Your task to perform on an android device: Open calendar and show me the second week of next month Image 0: 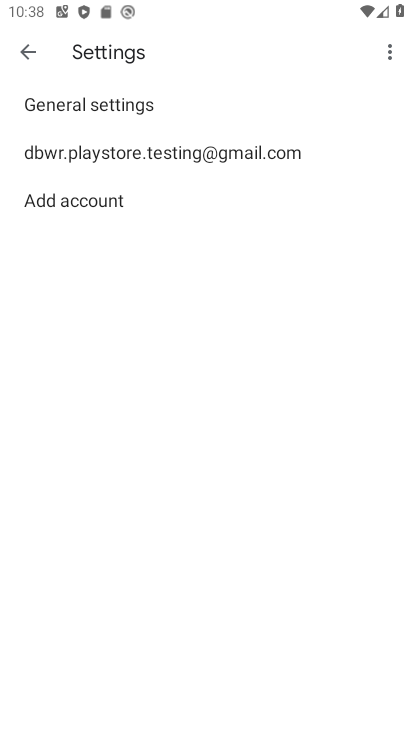
Step 0: press home button
Your task to perform on an android device: Open calendar and show me the second week of next month Image 1: 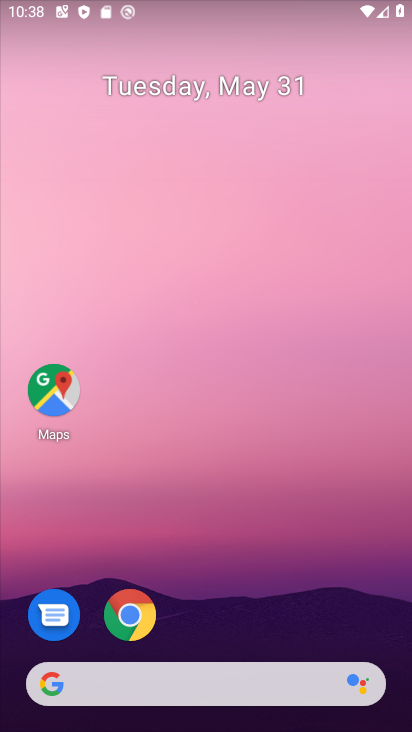
Step 1: drag from (242, 621) to (258, 163)
Your task to perform on an android device: Open calendar and show me the second week of next month Image 2: 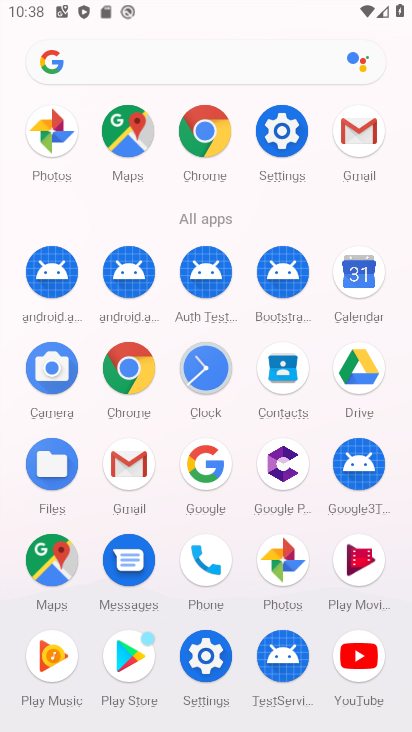
Step 2: click (349, 293)
Your task to perform on an android device: Open calendar and show me the second week of next month Image 3: 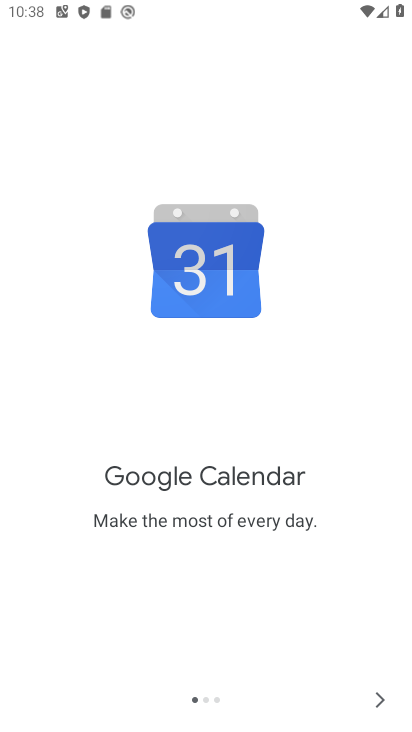
Step 3: click (369, 705)
Your task to perform on an android device: Open calendar and show me the second week of next month Image 4: 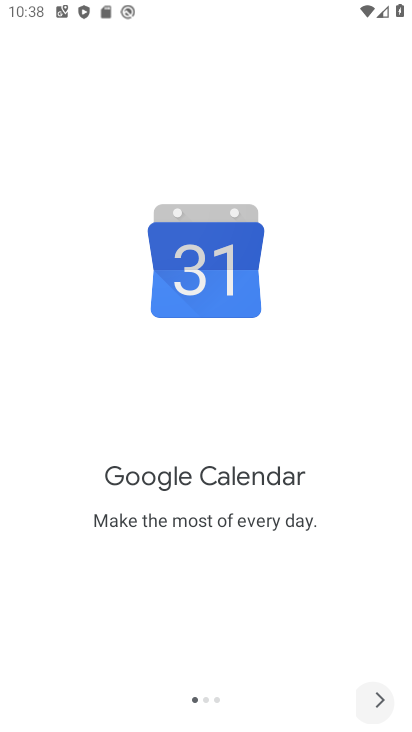
Step 4: click (369, 705)
Your task to perform on an android device: Open calendar and show me the second week of next month Image 5: 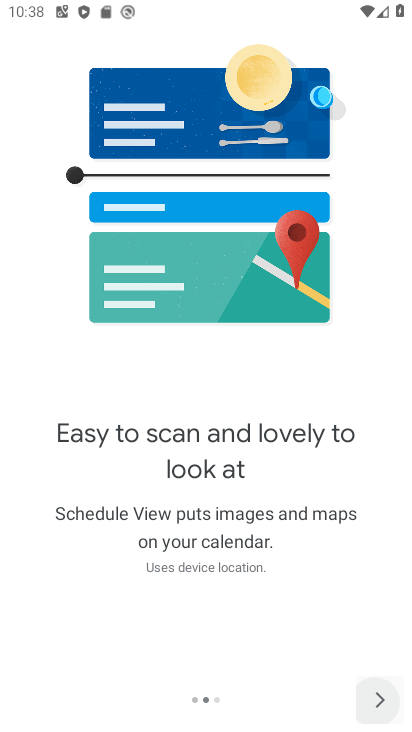
Step 5: click (369, 705)
Your task to perform on an android device: Open calendar and show me the second week of next month Image 6: 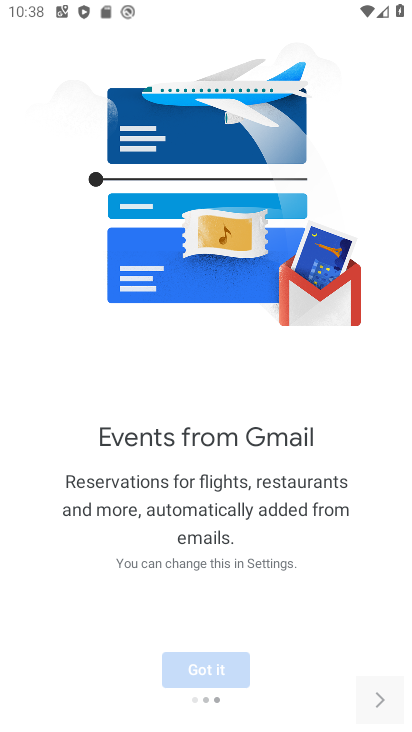
Step 6: click (369, 705)
Your task to perform on an android device: Open calendar and show me the second week of next month Image 7: 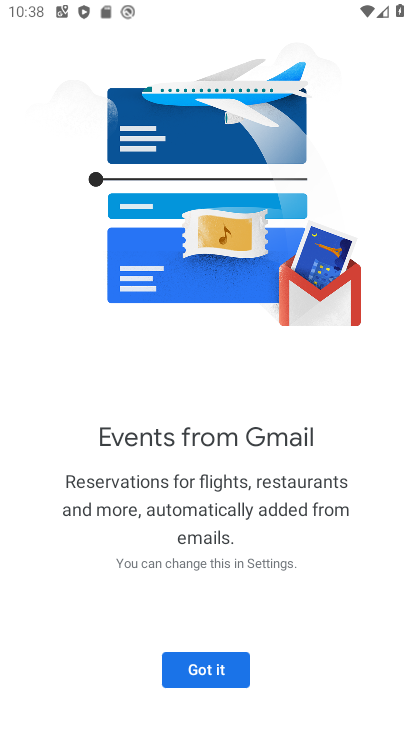
Step 7: click (369, 705)
Your task to perform on an android device: Open calendar and show me the second week of next month Image 8: 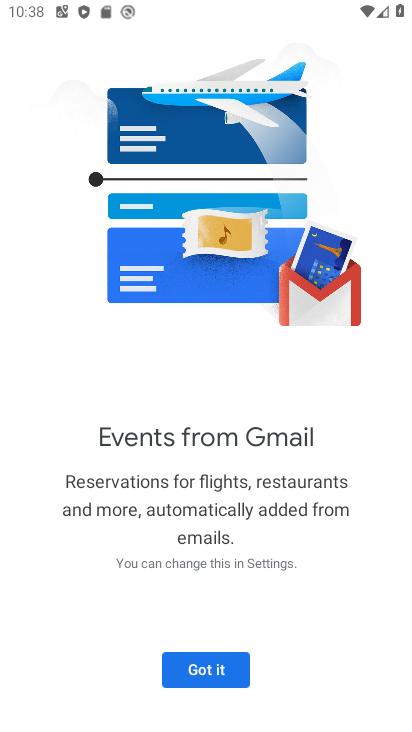
Step 8: click (369, 705)
Your task to perform on an android device: Open calendar and show me the second week of next month Image 9: 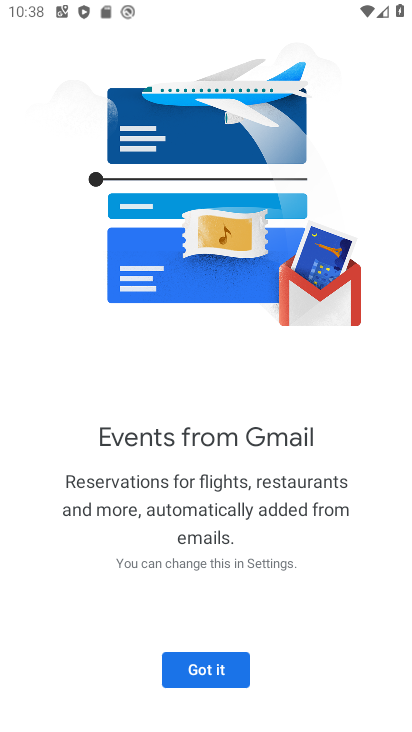
Step 9: click (221, 665)
Your task to perform on an android device: Open calendar and show me the second week of next month Image 10: 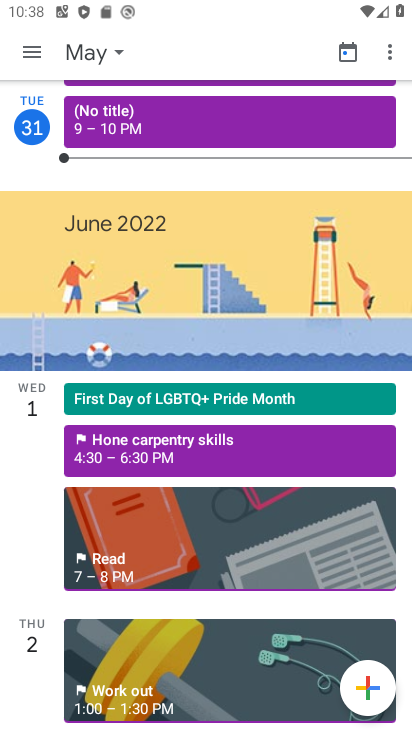
Step 10: task complete